Your task to perform on an android device: turn on bluetooth scan Image 0: 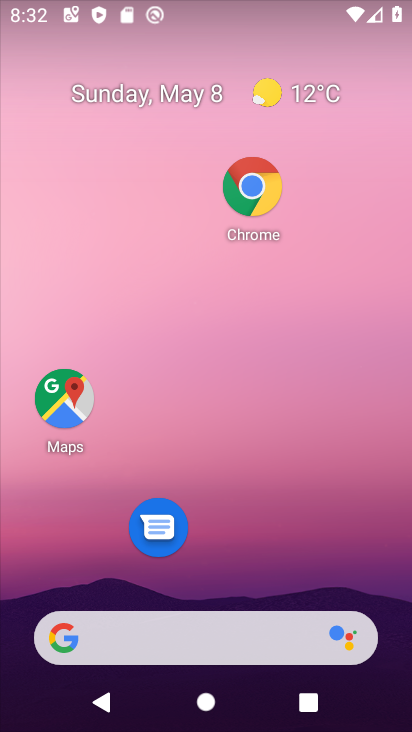
Step 0: drag from (261, 582) to (301, 234)
Your task to perform on an android device: turn on bluetooth scan Image 1: 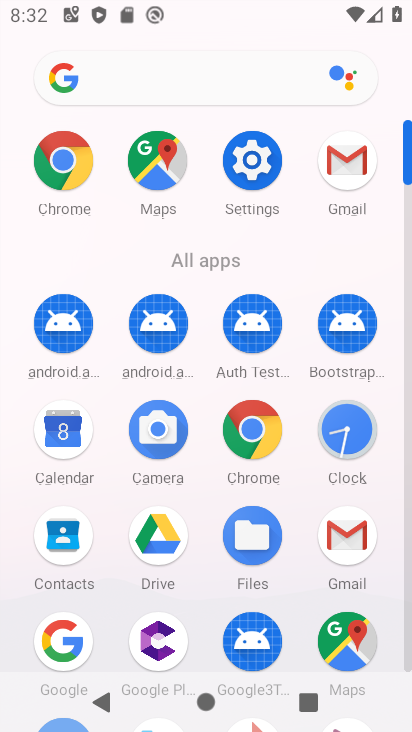
Step 1: click (247, 155)
Your task to perform on an android device: turn on bluetooth scan Image 2: 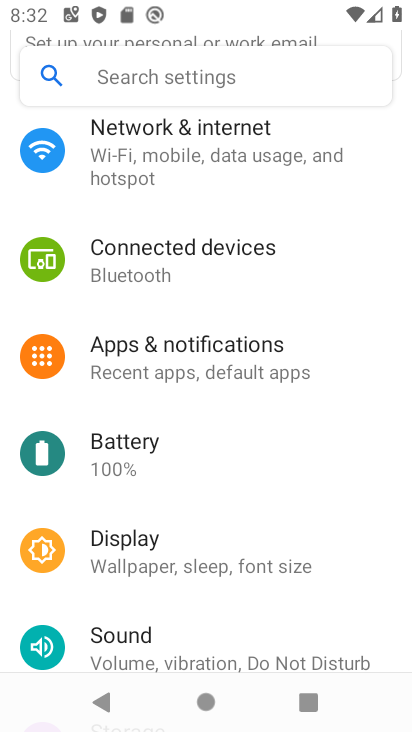
Step 2: click (204, 87)
Your task to perform on an android device: turn on bluetooth scan Image 3: 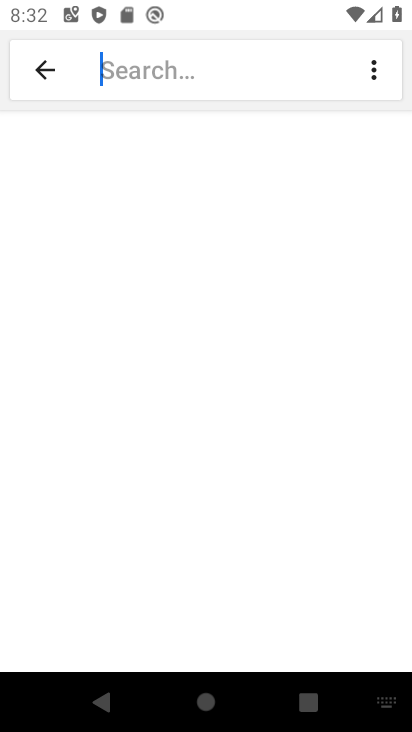
Step 3: type " bluetooth scan"
Your task to perform on an android device: turn on bluetooth scan Image 4: 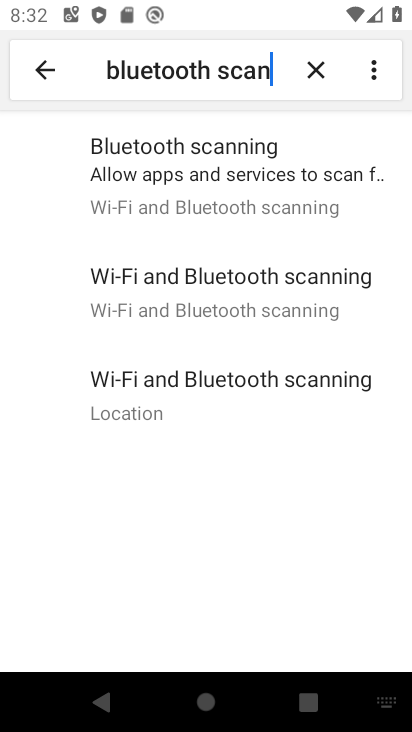
Step 4: click (257, 142)
Your task to perform on an android device: turn on bluetooth scan Image 5: 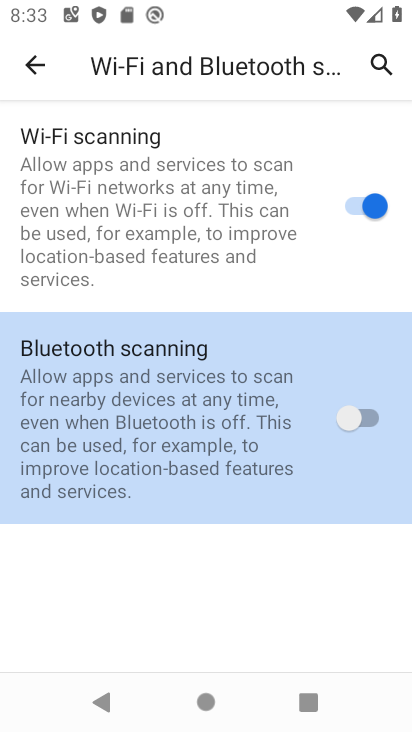
Step 5: click (349, 411)
Your task to perform on an android device: turn on bluetooth scan Image 6: 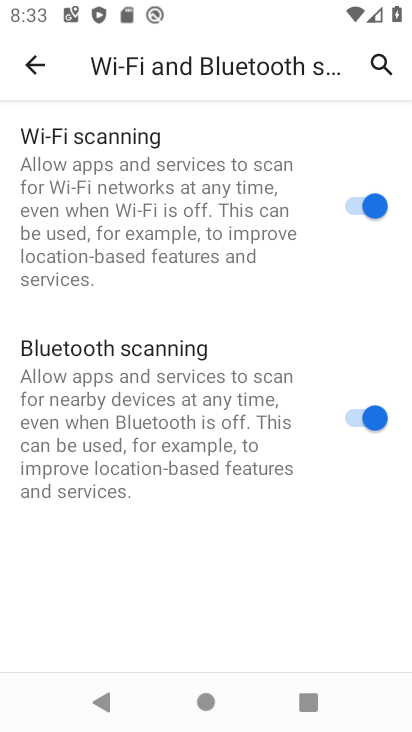
Step 6: task complete